Your task to perform on an android device: turn off smart reply in the gmail app Image 0: 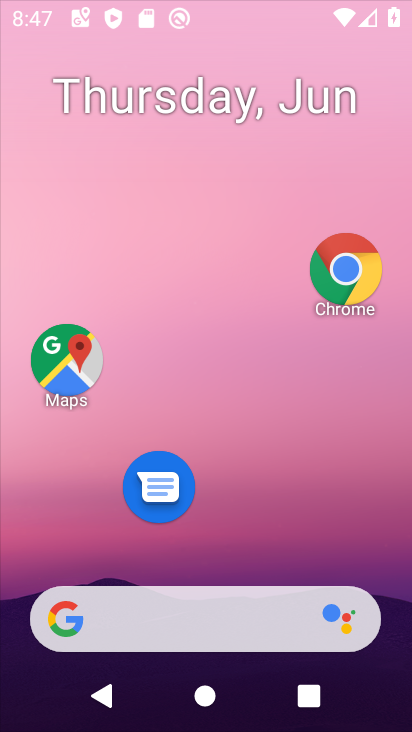
Step 0: click (287, 15)
Your task to perform on an android device: turn off smart reply in the gmail app Image 1: 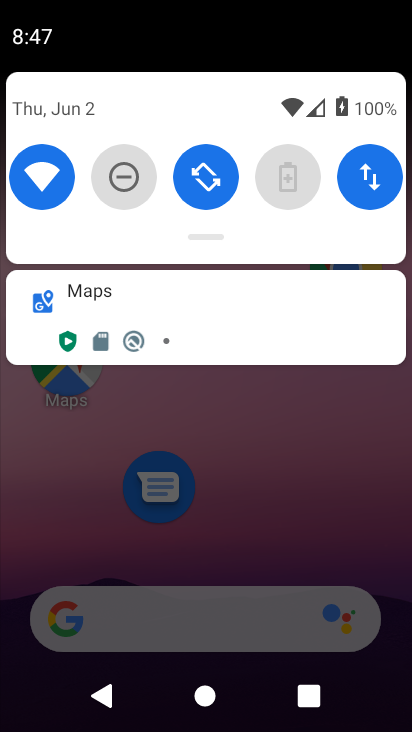
Step 1: drag from (213, 590) to (255, 40)
Your task to perform on an android device: turn off smart reply in the gmail app Image 2: 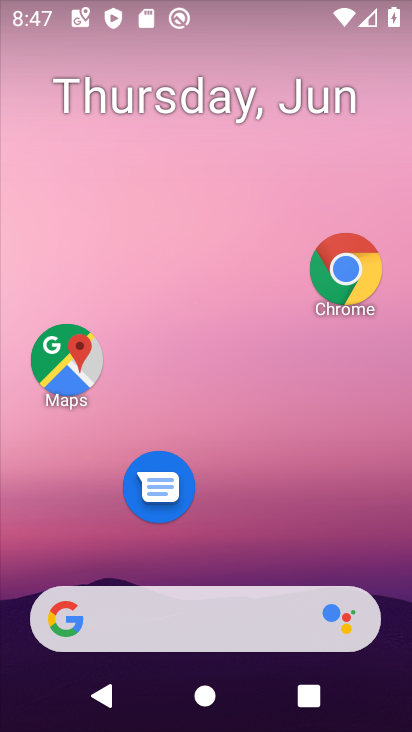
Step 2: drag from (228, 548) to (237, 132)
Your task to perform on an android device: turn off smart reply in the gmail app Image 3: 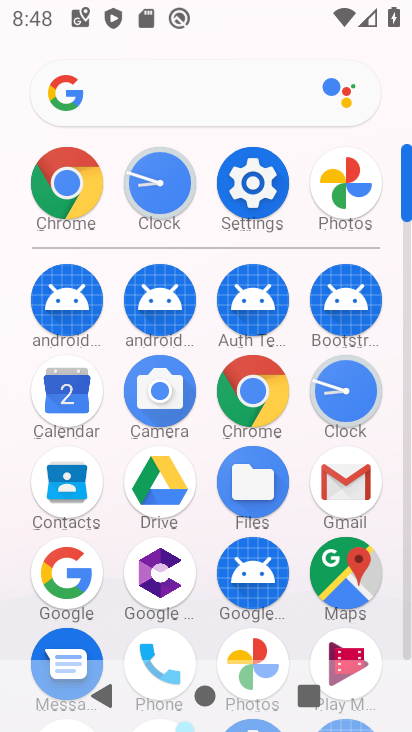
Step 3: drag from (200, 625) to (207, 163)
Your task to perform on an android device: turn off smart reply in the gmail app Image 4: 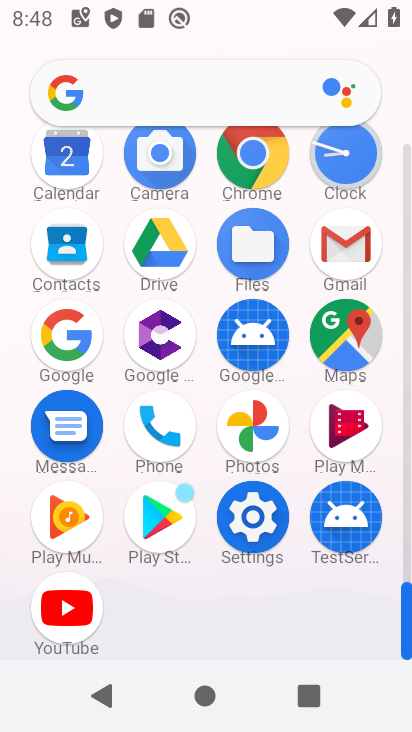
Step 4: drag from (194, 586) to (188, 255)
Your task to perform on an android device: turn off smart reply in the gmail app Image 5: 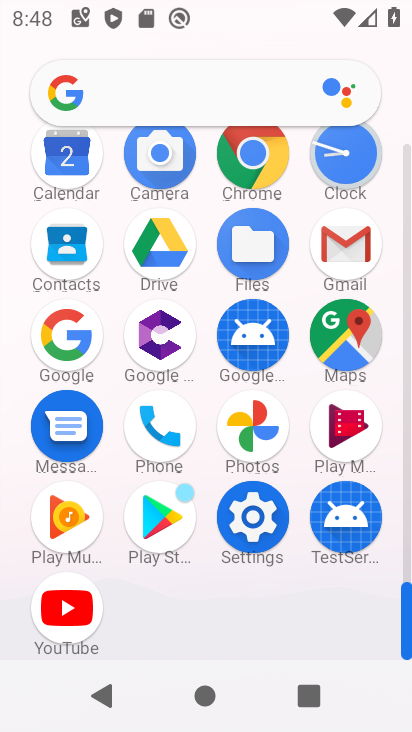
Step 5: click (348, 243)
Your task to perform on an android device: turn off smart reply in the gmail app Image 6: 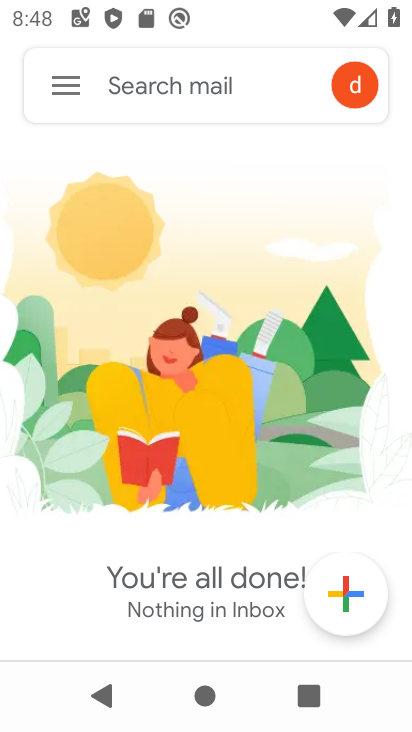
Step 6: click (59, 94)
Your task to perform on an android device: turn off smart reply in the gmail app Image 7: 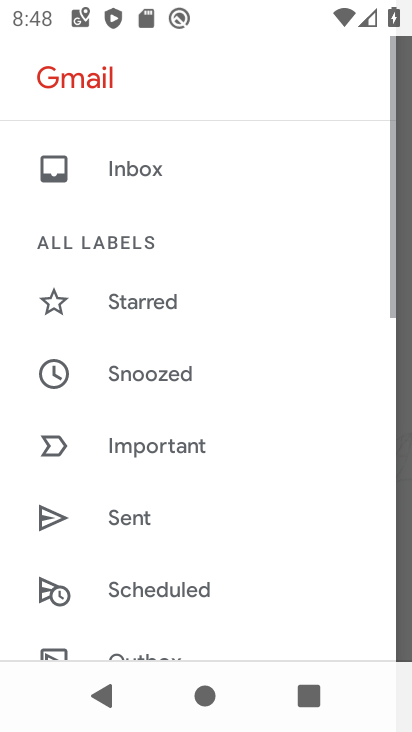
Step 7: drag from (130, 415) to (236, 43)
Your task to perform on an android device: turn off smart reply in the gmail app Image 8: 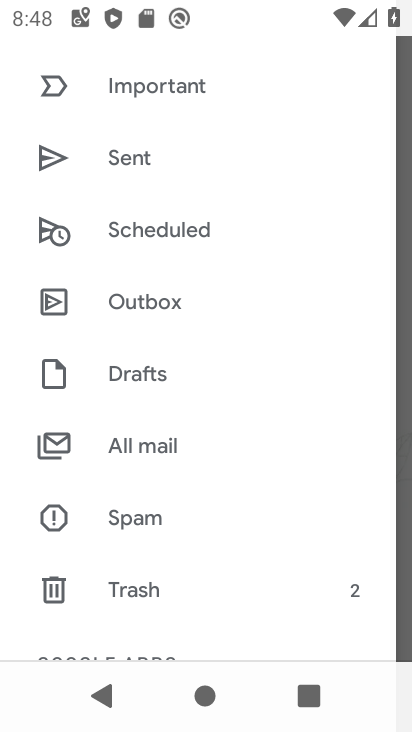
Step 8: drag from (178, 553) to (267, 88)
Your task to perform on an android device: turn off smart reply in the gmail app Image 9: 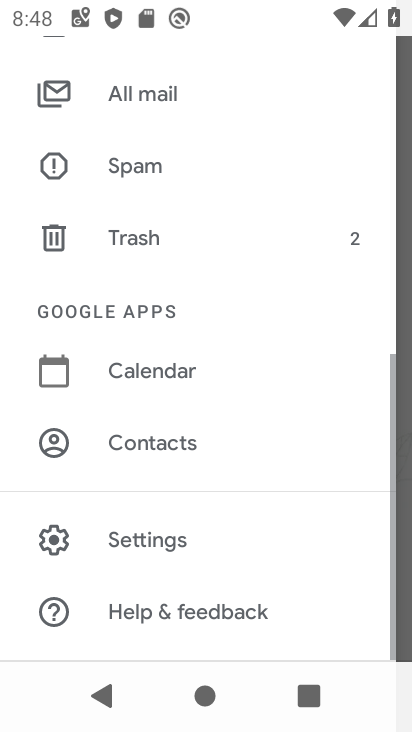
Step 9: click (175, 536)
Your task to perform on an android device: turn off smart reply in the gmail app Image 10: 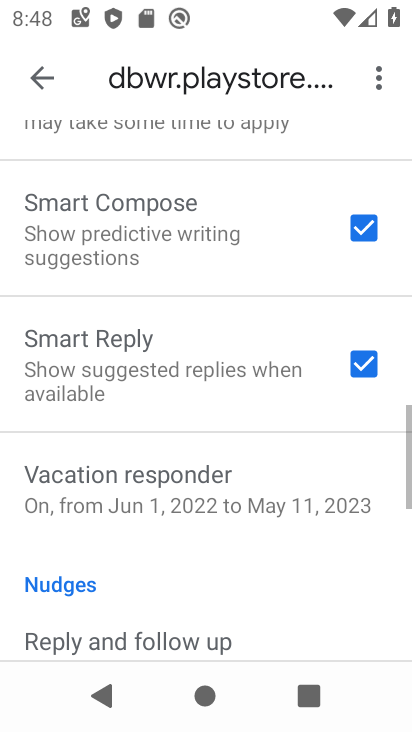
Step 10: drag from (194, 574) to (278, 196)
Your task to perform on an android device: turn off smart reply in the gmail app Image 11: 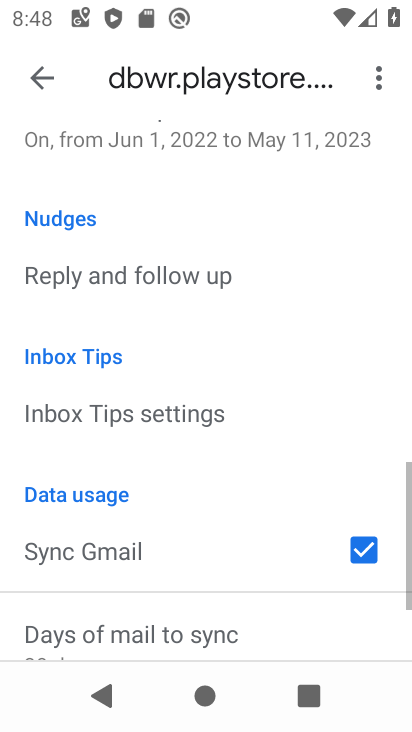
Step 11: drag from (216, 244) to (386, 653)
Your task to perform on an android device: turn off smart reply in the gmail app Image 12: 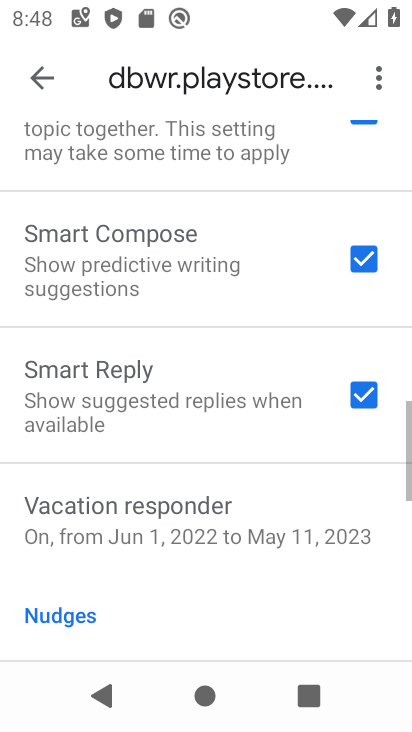
Step 12: drag from (251, 320) to (233, 691)
Your task to perform on an android device: turn off smart reply in the gmail app Image 13: 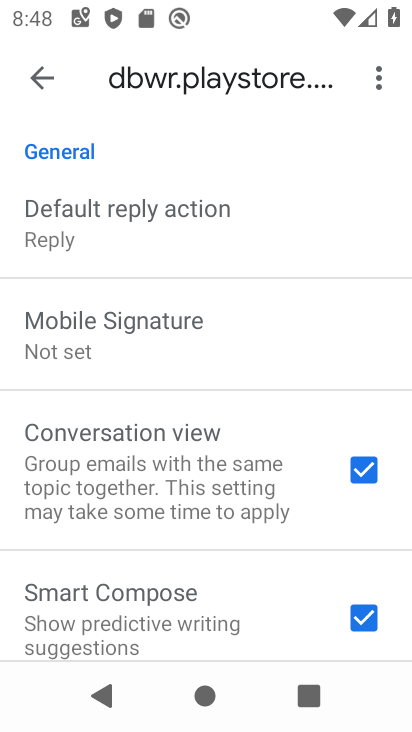
Step 13: drag from (158, 234) to (162, 655)
Your task to perform on an android device: turn off smart reply in the gmail app Image 14: 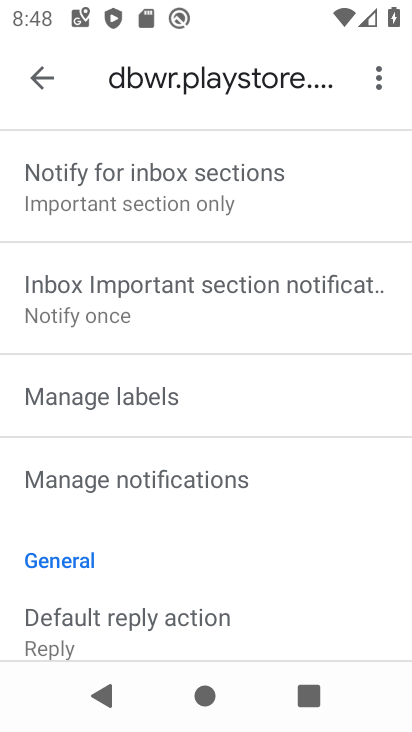
Step 14: drag from (221, 261) to (269, 730)
Your task to perform on an android device: turn off smart reply in the gmail app Image 15: 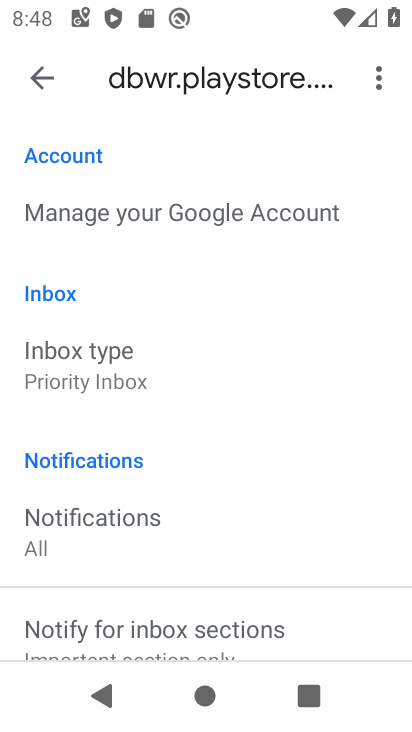
Step 15: drag from (245, 572) to (296, 126)
Your task to perform on an android device: turn off smart reply in the gmail app Image 16: 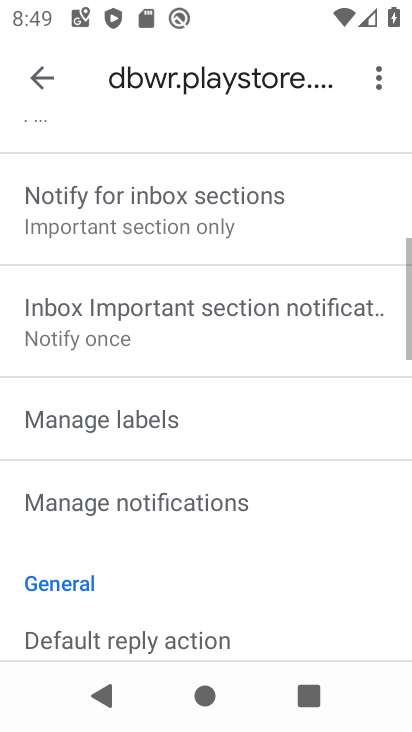
Step 16: drag from (233, 552) to (277, 8)
Your task to perform on an android device: turn off smart reply in the gmail app Image 17: 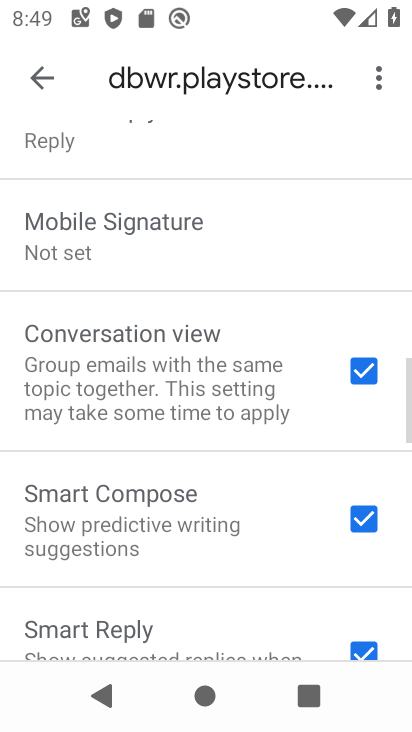
Step 17: drag from (238, 496) to (309, 130)
Your task to perform on an android device: turn off smart reply in the gmail app Image 18: 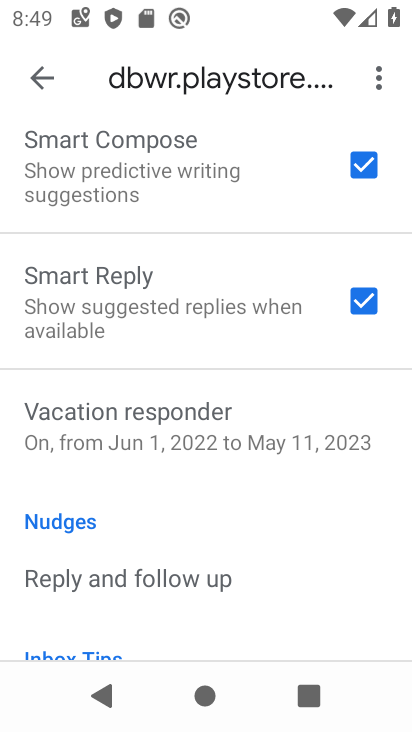
Step 18: click (362, 293)
Your task to perform on an android device: turn off smart reply in the gmail app Image 19: 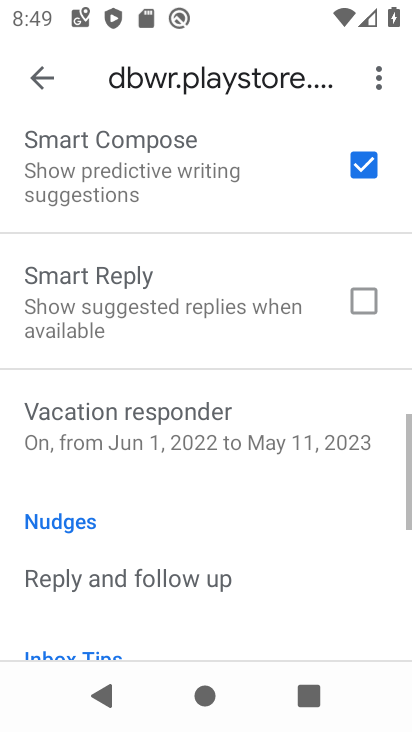
Step 19: task complete